Your task to perform on an android device: What is the recent news? Image 0: 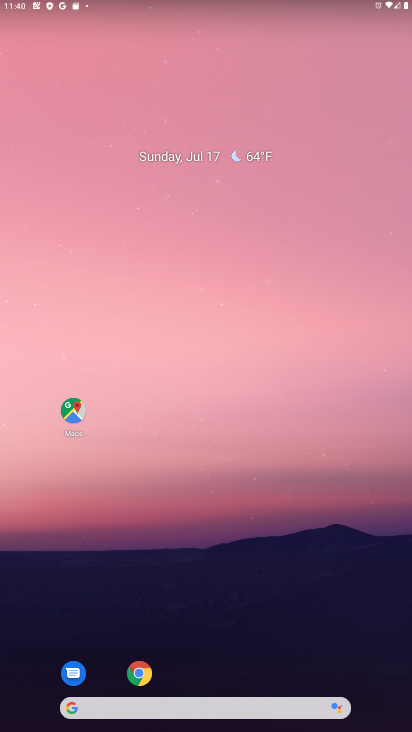
Step 0: drag from (280, 637) to (249, 158)
Your task to perform on an android device: What is the recent news? Image 1: 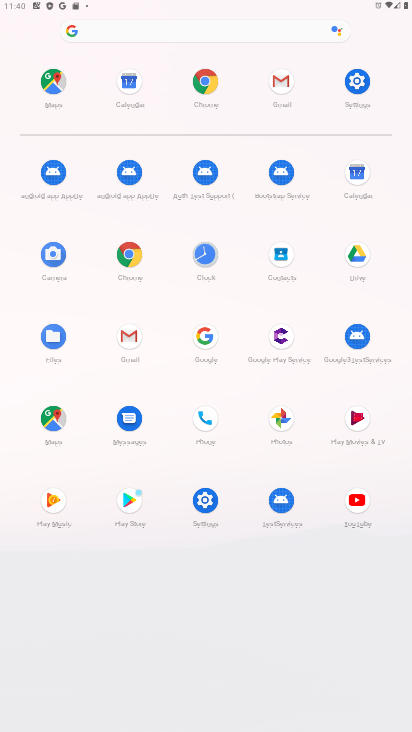
Step 1: click (203, 336)
Your task to perform on an android device: What is the recent news? Image 2: 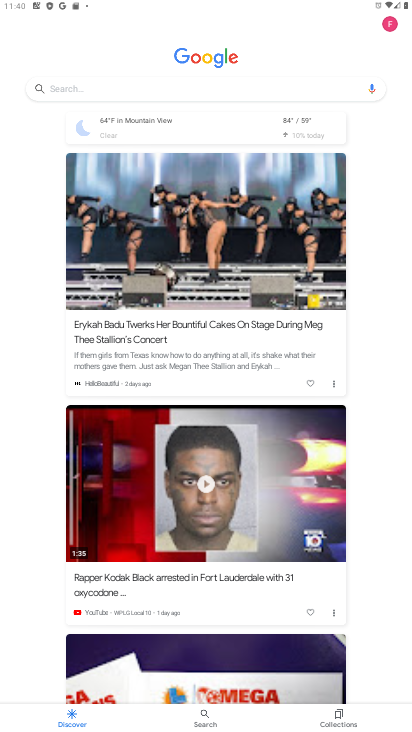
Step 2: click (183, 79)
Your task to perform on an android device: What is the recent news? Image 3: 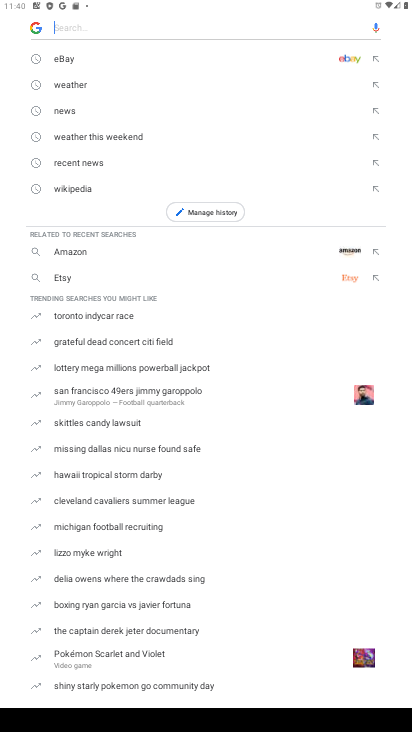
Step 3: click (114, 167)
Your task to perform on an android device: What is the recent news? Image 4: 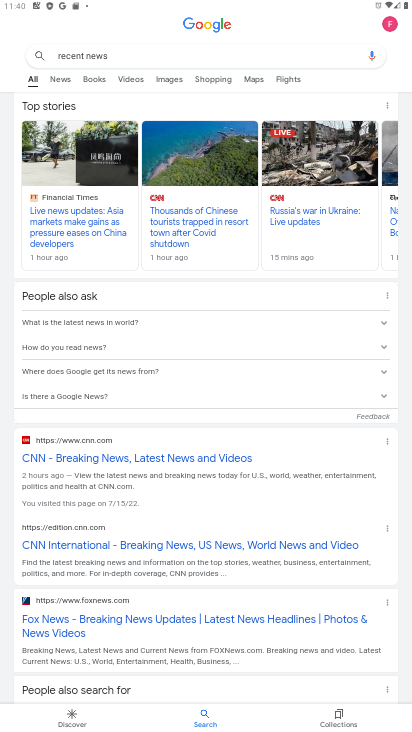
Step 4: task complete